Your task to perform on an android device: change the clock display to digital Image 0: 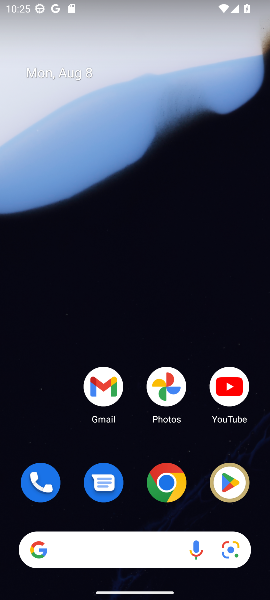
Step 0: drag from (133, 446) to (132, 21)
Your task to perform on an android device: change the clock display to digital Image 1: 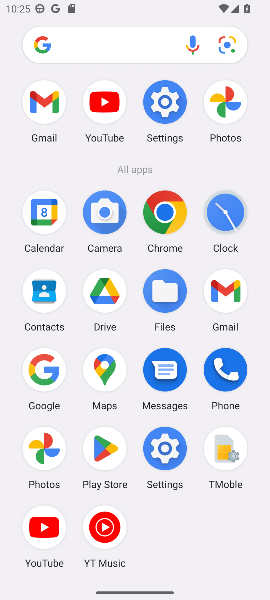
Step 1: click (229, 218)
Your task to perform on an android device: change the clock display to digital Image 2: 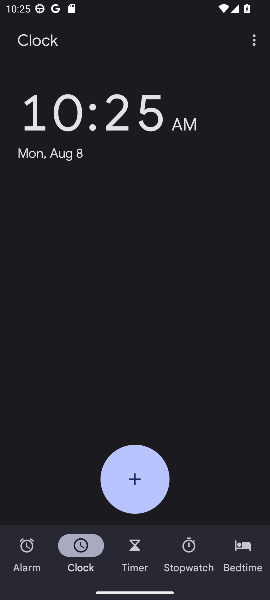
Step 2: click (259, 34)
Your task to perform on an android device: change the clock display to digital Image 3: 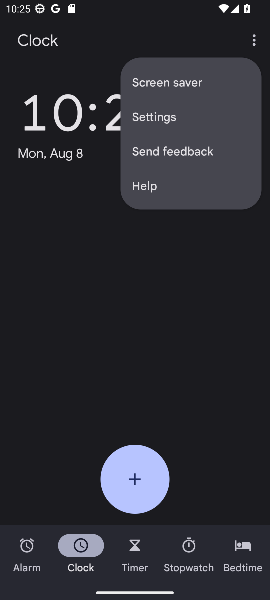
Step 3: click (154, 123)
Your task to perform on an android device: change the clock display to digital Image 4: 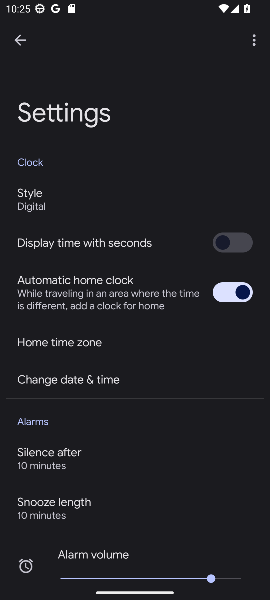
Step 4: task complete